Your task to perform on an android device: Open the calendar app, open the side menu, and click the "Day" option Image 0: 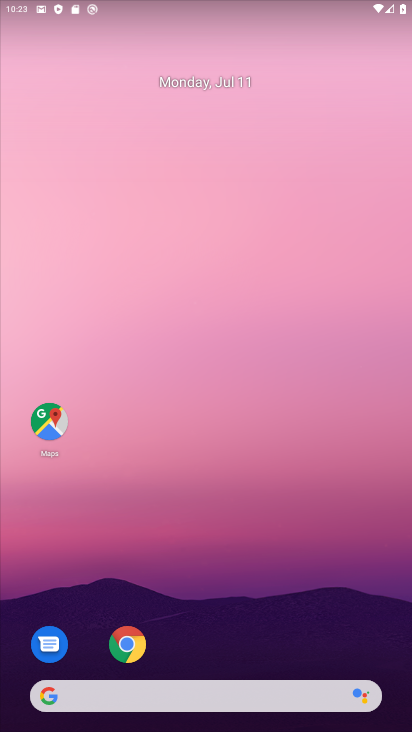
Step 0: click (200, 125)
Your task to perform on an android device: Open the calendar app, open the side menu, and click the "Day" option Image 1: 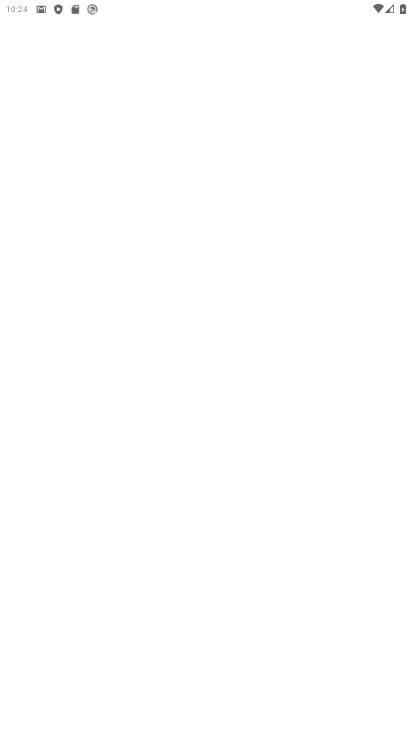
Step 1: press home button
Your task to perform on an android device: Open the calendar app, open the side menu, and click the "Day" option Image 2: 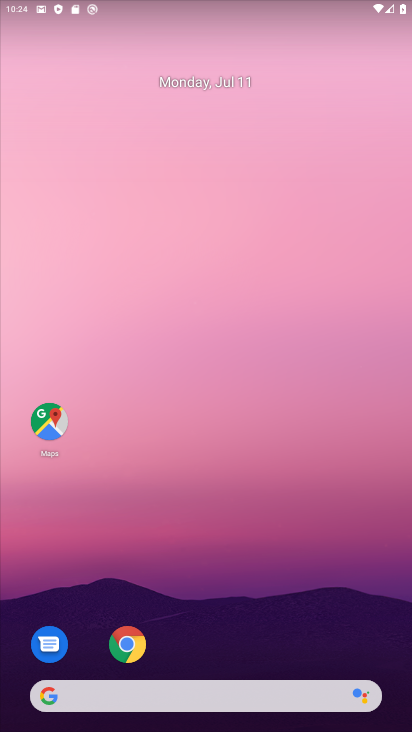
Step 2: drag from (233, 583) to (216, 167)
Your task to perform on an android device: Open the calendar app, open the side menu, and click the "Day" option Image 3: 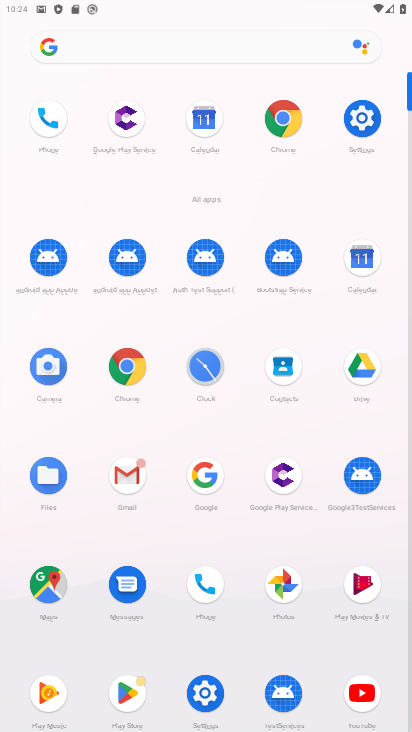
Step 3: click (354, 252)
Your task to perform on an android device: Open the calendar app, open the side menu, and click the "Day" option Image 4: 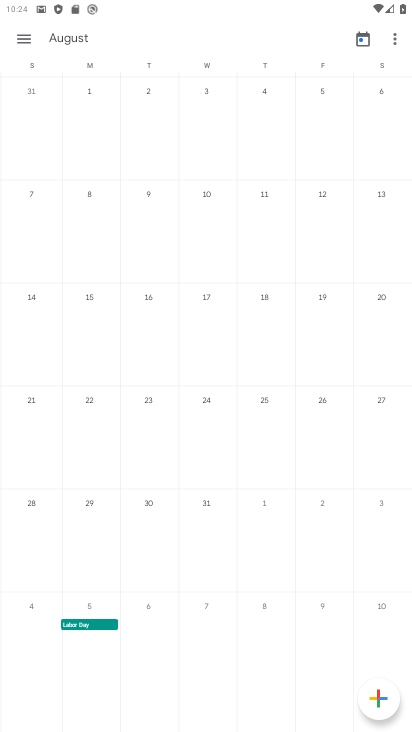
Step 4: click (23, 27)
Your task to perform on an android device: Open the calendar app, open the side menu, and click the "Day" option Image 5: 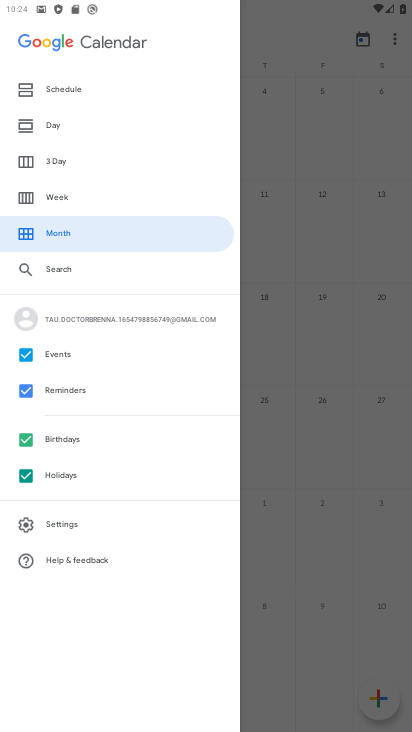
Step 5: click (55, 121)
Your task to perform on an android device: Open the calendar app, open the side menu, and click the "Day" option Image 6: 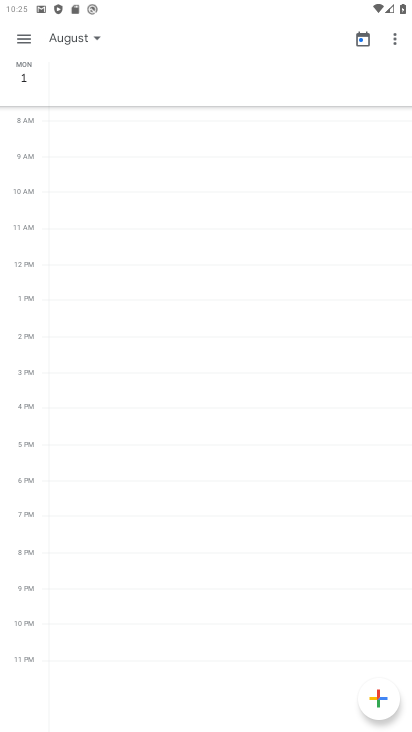
Step 6: task complete